Your task to perform on an android device: allow cookies in the chrome app Image 0: 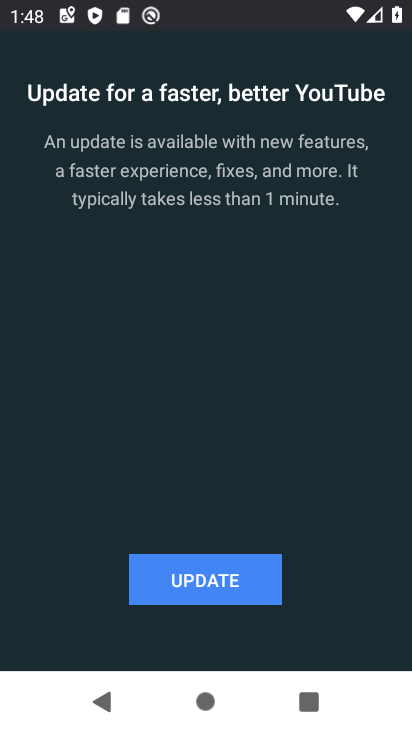
Step 0: press home button
Your task to perform on an android device: allow cookies in the chrome app Image 1: 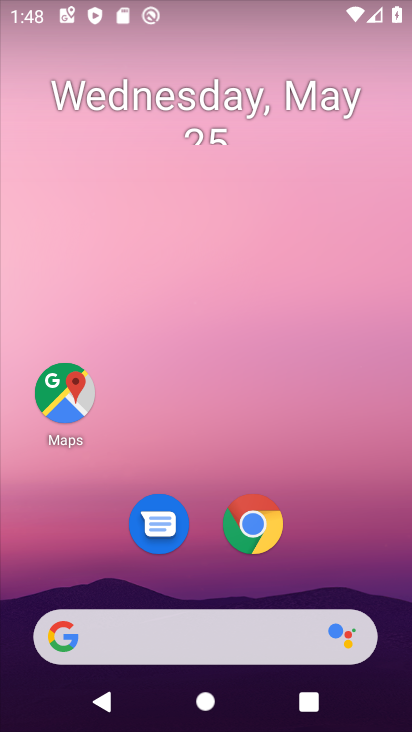
Step 1: click (261, 521)
Your task to perform on an android device: allow cookies in the chrome app Image 2: 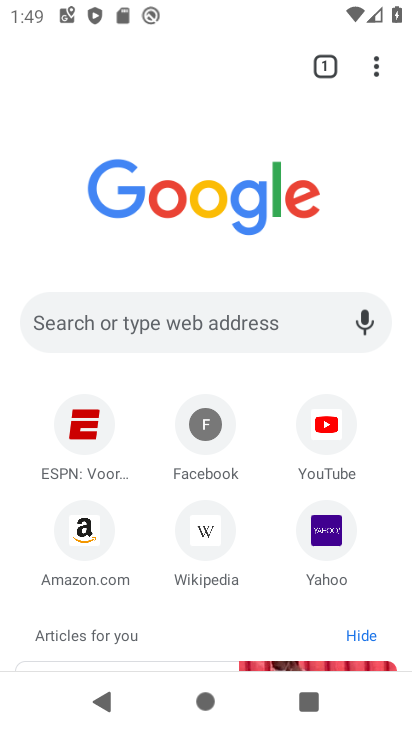
Step 2: click (368, 57)
Your task to perform on an android device: allow cookies in the chrome app Image 3: 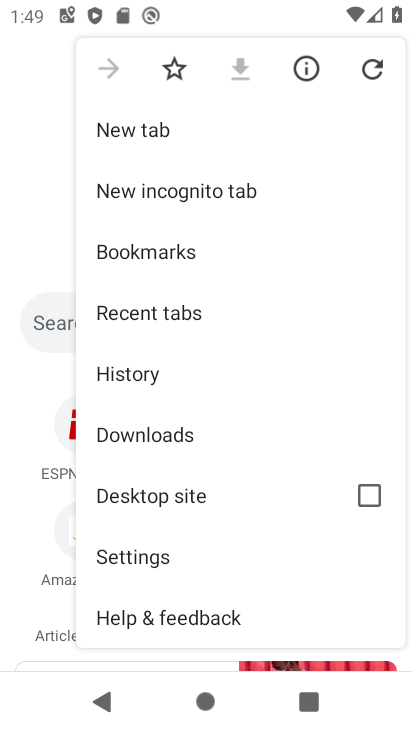
Step 3: click (192, 561)
Your task to perform on an android device: allow cookies in the chrome app Image 4: 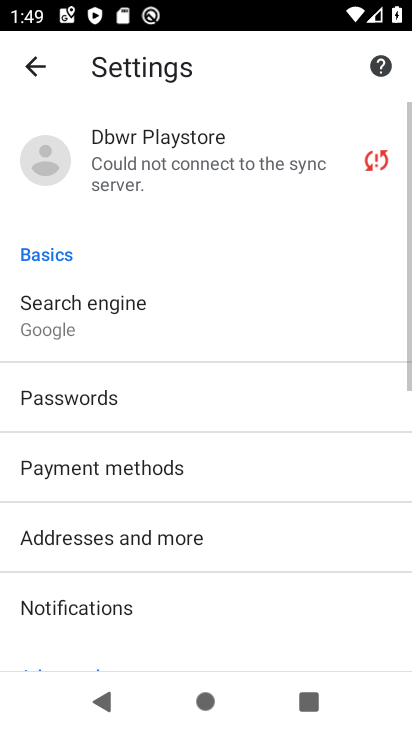
Step 4: drag from (267, 485) to (311, 146)
Your task to perform on an android device: allow cookies in the chrome app Image 5: 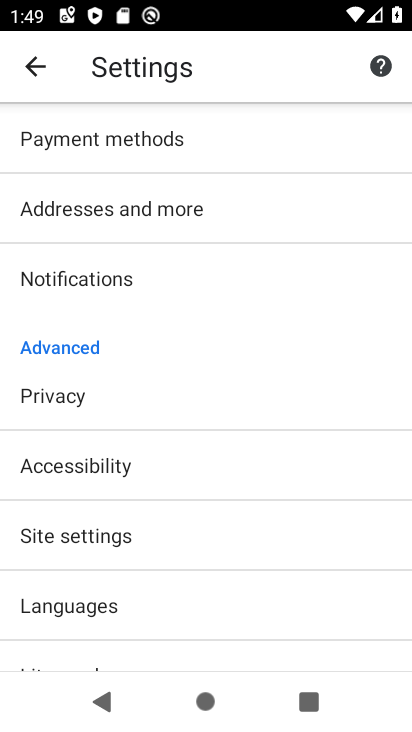
Step 5: click (189, 536)
Your task to perform on an android device: allow cookies in the chrome app Image 6: 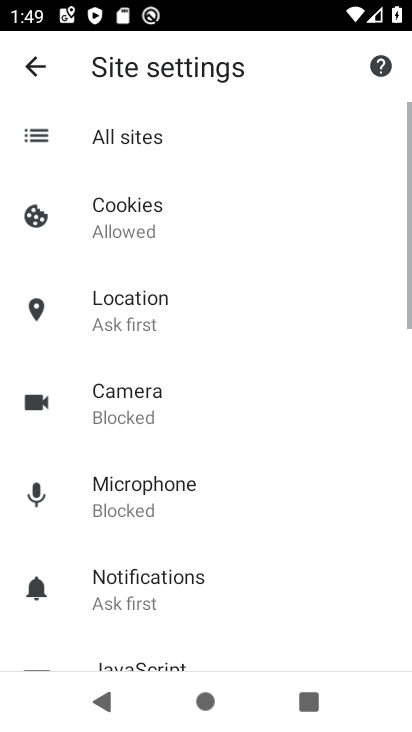
Step 6: drag from (247, 498) to (258, 359)
Your task to perform on an android device: allow cookies in the chrome app Image 7: 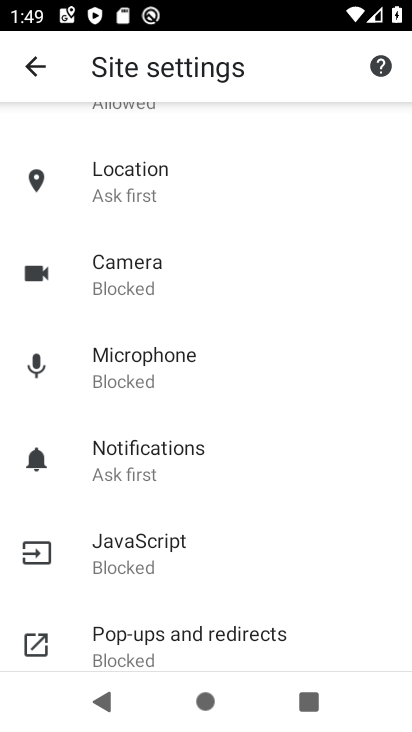
Step 7: drag from (266, 280) to (250, 516)
Your task to perform on an android device: allow cookies in the chrome app Image 8: 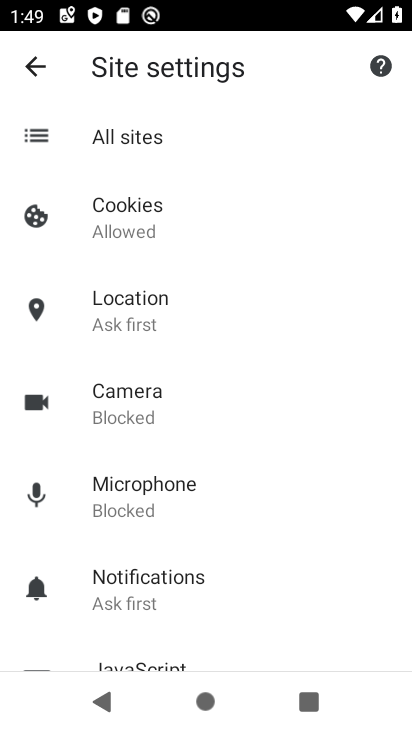
Step 8: click (197, 212)
Your task to perform on an android device: allow cookies in the chrome app Image 9: 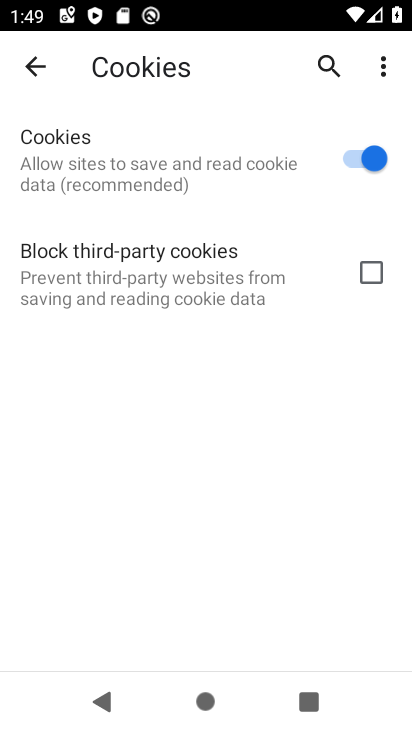
Step 9: task complete